Your task to perform on an android device: Go to Maps Image 0: 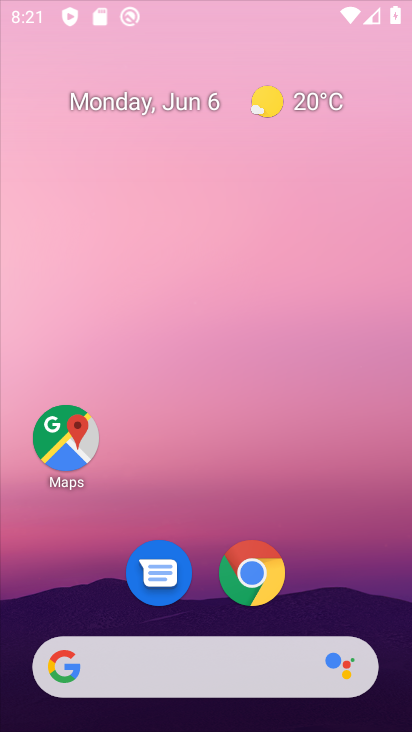
Step 0: drag from (192, 602) to (207, 175)
Your task to perform on an android device: Go to Maps Image 1: 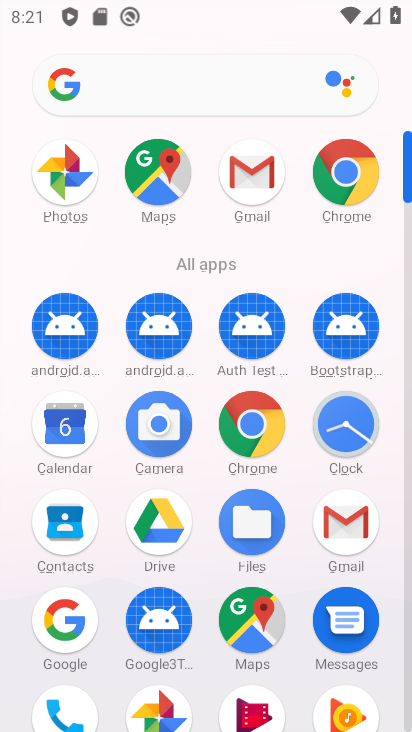
Step 1: click (160, 173)
Your task to perform on an android device: Go to Maps Image 2: 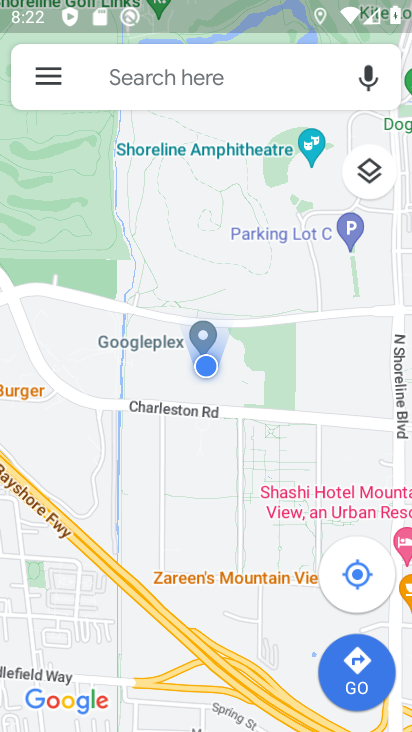
Step 2: task complete